Your task to perform on an android device: turn off translation in the chrome app Image 0: 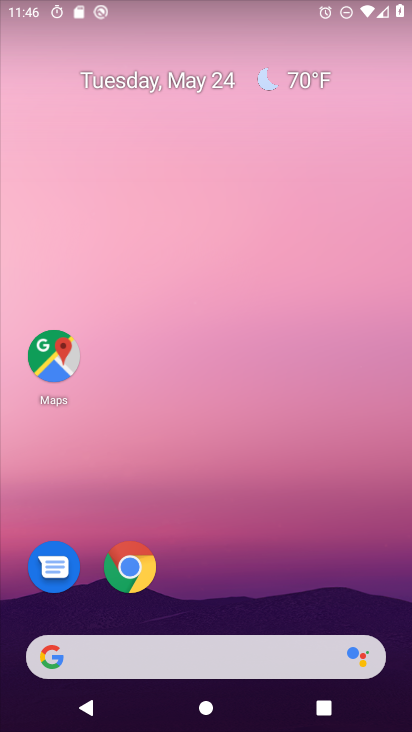
Step 0: click (128, 572)
Your task to perform on an android device: turn off translation in the chrome app Image 1: 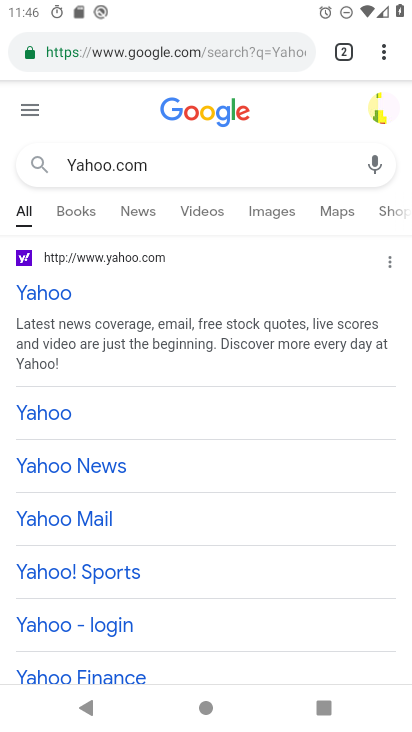
Step 1: click (385, 49)
Your task to perform on an android device: turn off translation in the chrome app Image 2: 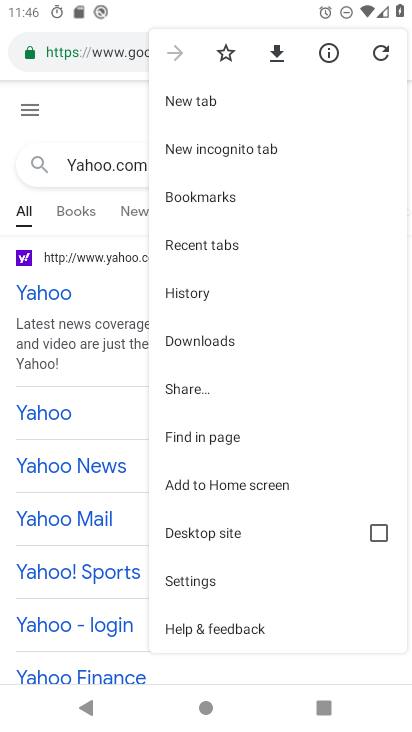
Step 2: click (206, 579)
Your task to perform on an android device: turn off translation in the chrome app Image 3: 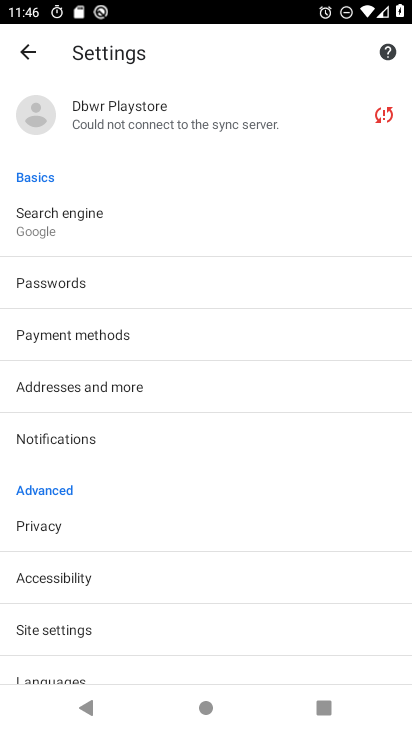
Step 3: drag from (221, 513) to (230, 279)
Your task to perform on an android device: turn off translation in the chrome app Image 4: 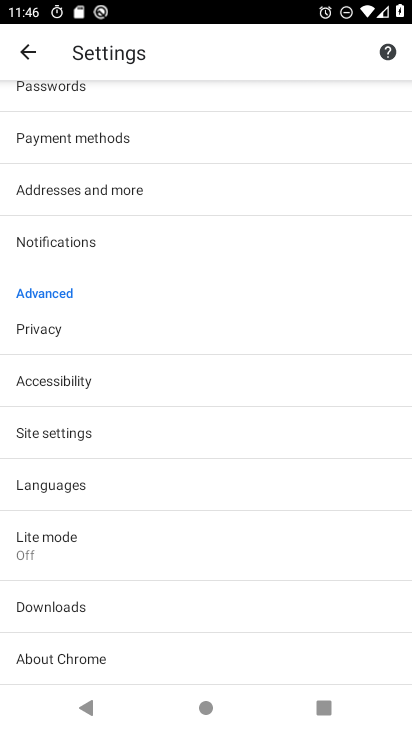
Step 4: click (38, 486)
Your task to perform on an android device: turn off translation in the chrome app Image 5: 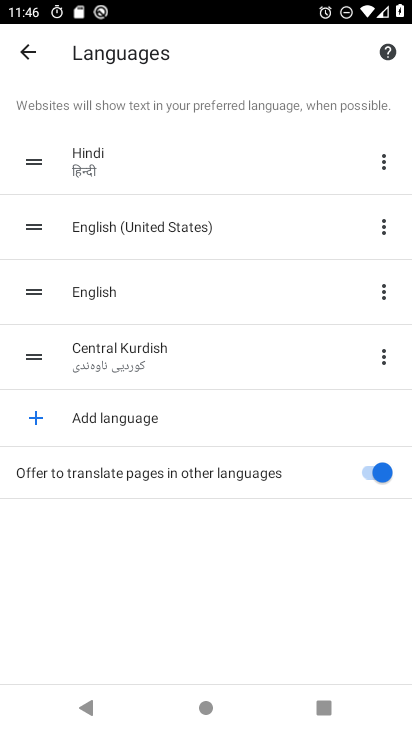
Step 5: click (362, 471)
Your task to perform on an android device: turn off translation in the chrome app Image 6: 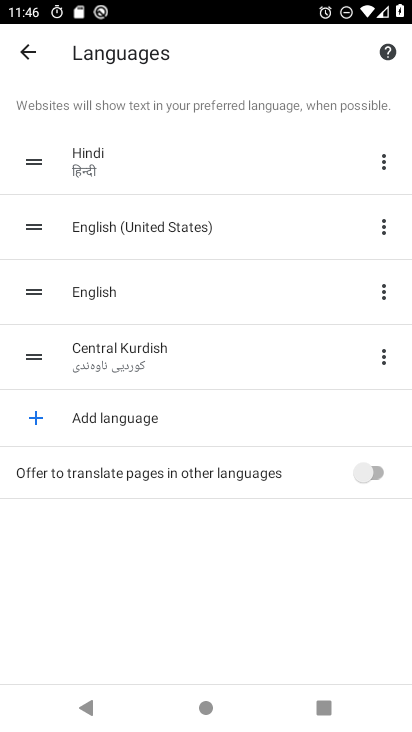
Step 6: task complete